Your task to perform on an android device: Toggle the flashlight Image 0: 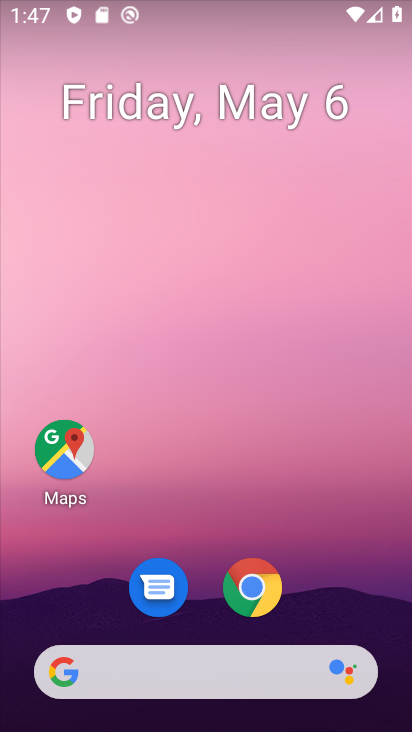
Step 0: drag from (326, 558) to (390, 0)
Your task to perform on an android device: Toggle the flashlight Image 1: 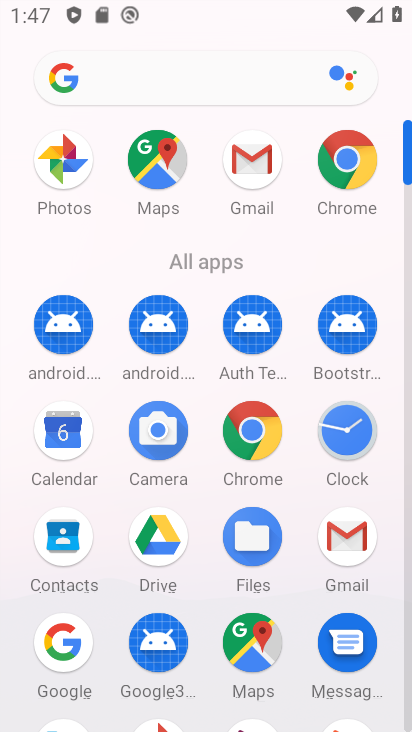
Step 1: drag from (200, 592) to (214, 106)
Your task to perform on an android device: Toggle the flashlight Image 2: 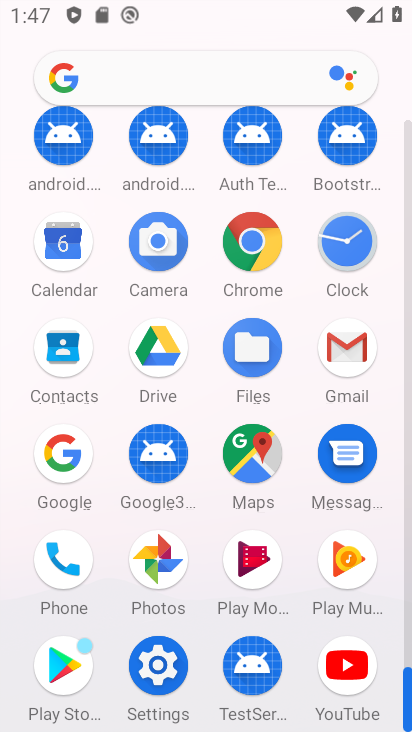
Step 2: click (167, 665)
Your task to perform on an android device: Toggle the flashlight Image 3: 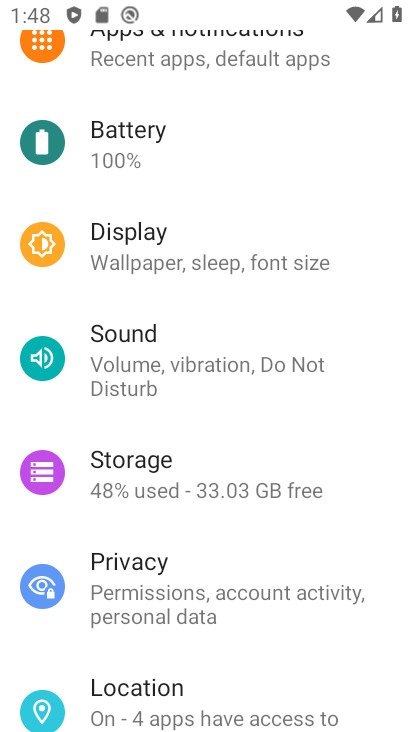
Step 3: task complete